Your task to perform on an android device: find snoozed emails in the gmail app Image 0: 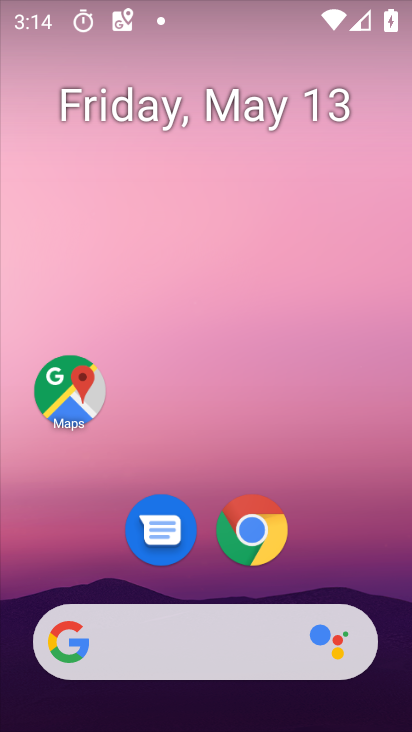
Step 0: drag from (328, 564) to (278, 172)
Your task to perform on an android device: find snoozed emails in the gmail app Image 1: 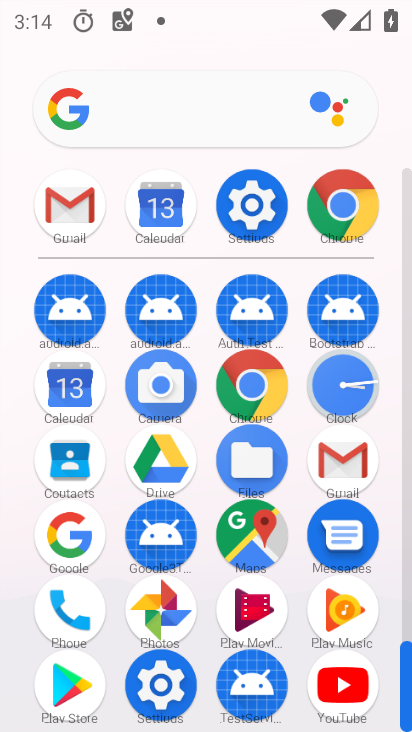
Step 1: click (81, 213)
Your task to perform on an android device: find snoozed emails in the gmail app Image 2: 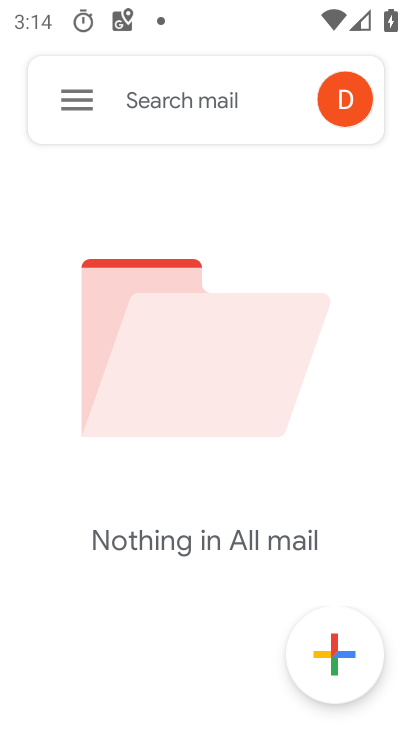
Step 2: click (78, 106)
Your task to perform on an android device: find snoozed emails in the gmail app Image 3: 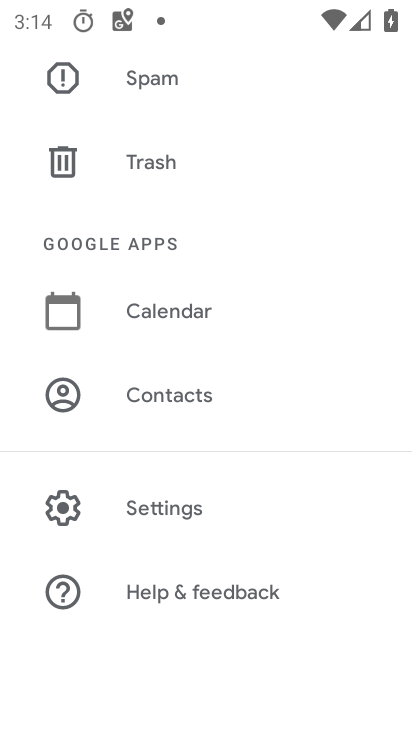
Step 3: drag from (196, 193) to (211, 635)
Your task to perform on an android device: find snoozed emails in the gmail app Image 4: 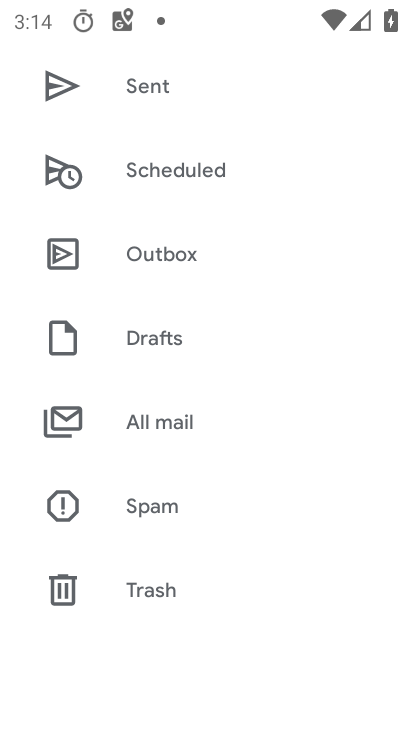
Step 4: drag from (188, 170) to (205, 606)
Your task to perform on an android device: find snoozed emails in the gmail app Image 5: 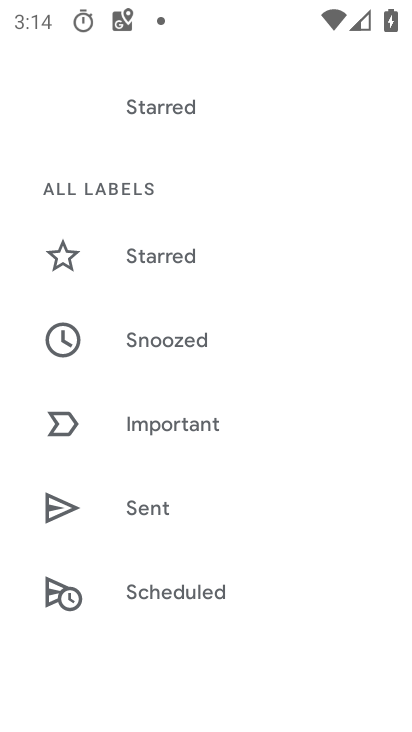
Step 5: click (175, 327)
Your task to perform on an android device: find snoozed emails in the gmail app Image 6: 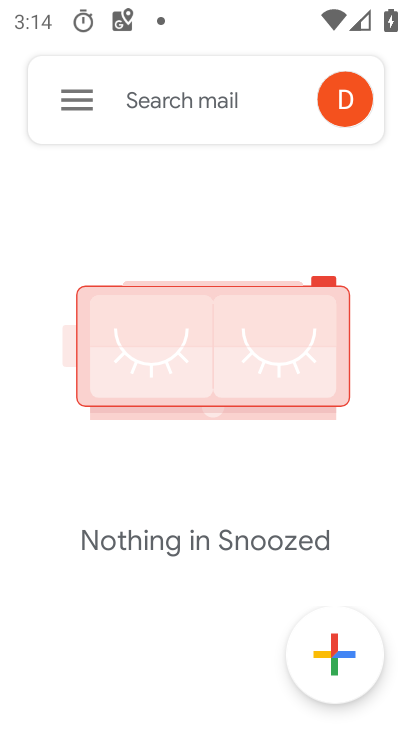
Step 6: task complete